Your task to perform on an android device: Open Chrome and go to settings Image 0: 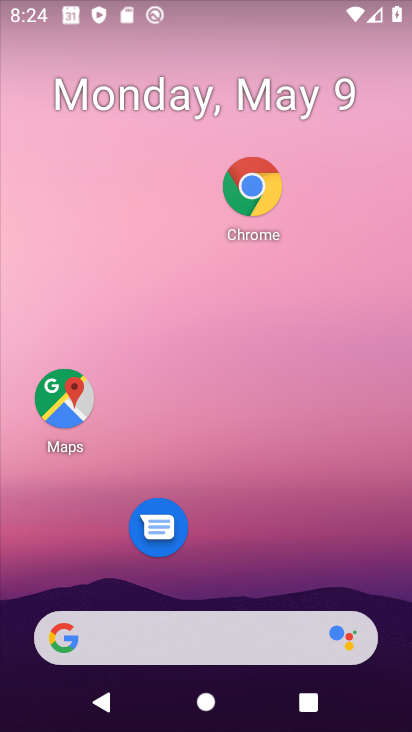
Step 0: click (246, 177)
Your task to perform on an android device: Open Chrome and go to settings Image 1: 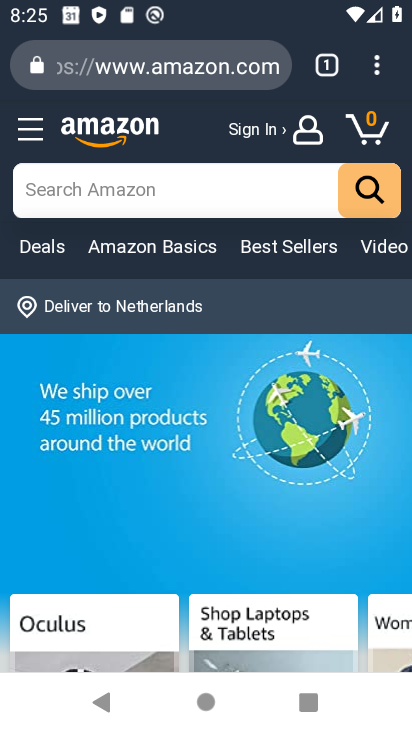
Step 1: click (376, 61)
Your task to perform on an android device: Open Chrome and go to settings Image 2: 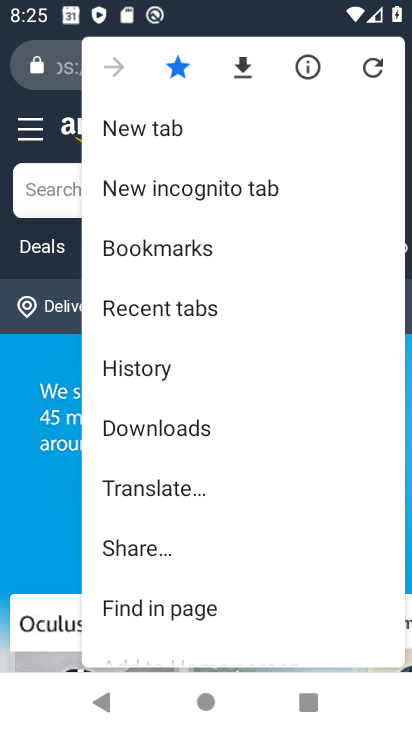
Step 2: drag from (244, 597) to (253, 145)
Your task to perform on an android device: Open Chrome and go to settings Image 3: 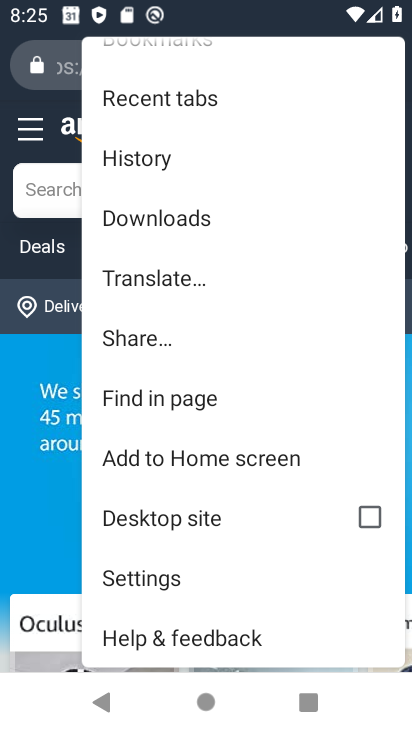
Step 3: click (187, 575)
Your task to perform on an android device: Open Chrome and go to settings Image 4: 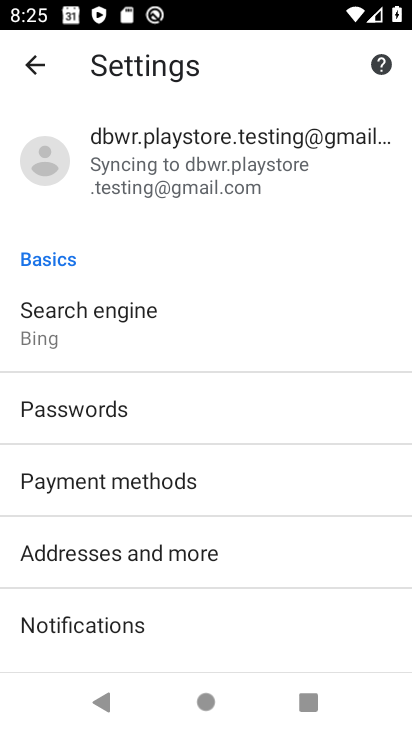
Step 4: task complete